Your task to perform on an android device: Open Google Chrome and open the bookmarks view Image 0: 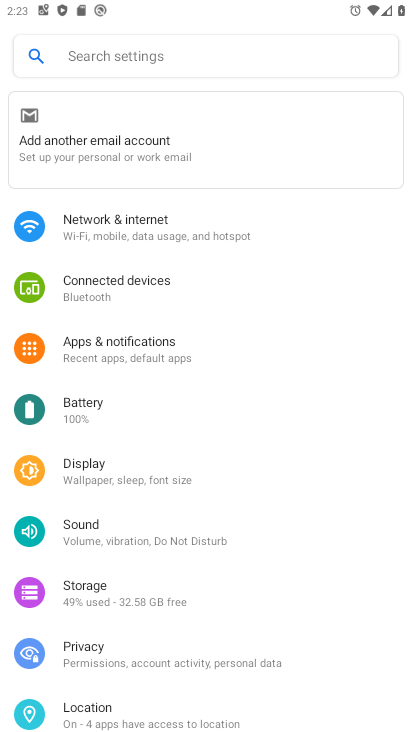
Step 0: press home button
Your task to perform on an android device: Open Google Chrome and open the bookmarks view Image 1: 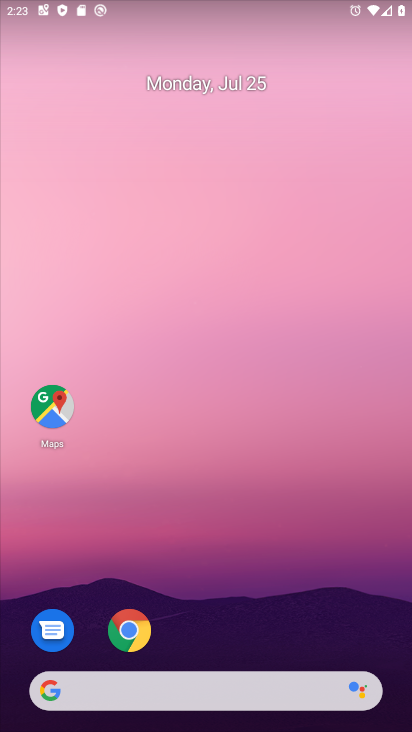
Step 1: click (136, 638)
Your task to perform on an android device: Open Google Chrome and open the bookmarks view Image 2: 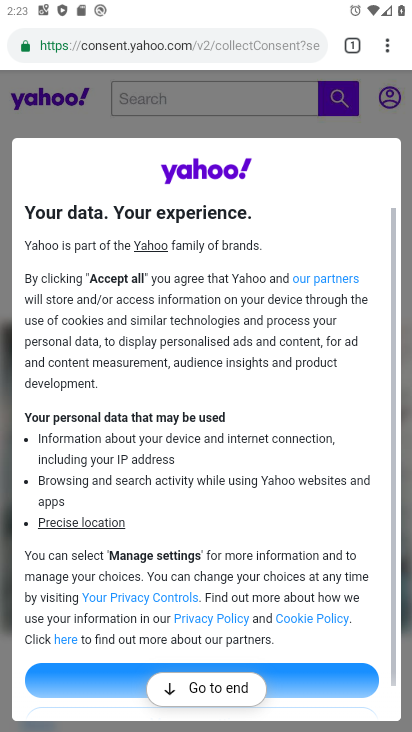
Step 2: click (387, 37)
Your task to perform on an android device: Open Google Chrome and open the bookmarks view Image 3: 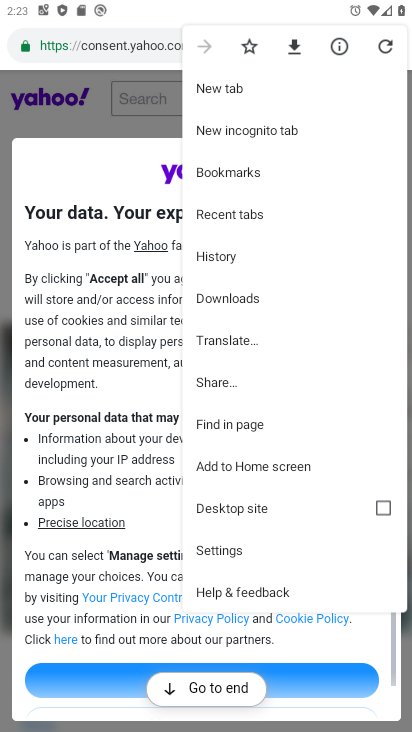
Step 3: click (253, 181)
Your task to perform on an android device: Open Google Chrome and open the bookmarks view Image 4: 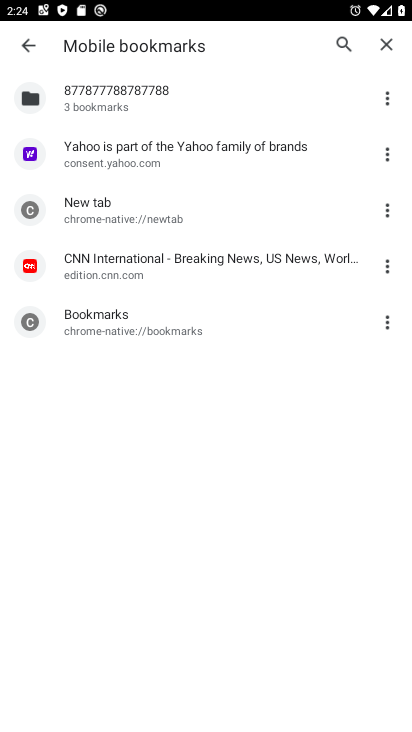
Step 4: task complete